Your task to perform on an android device: delete browsing data in the chrome app Image 0: 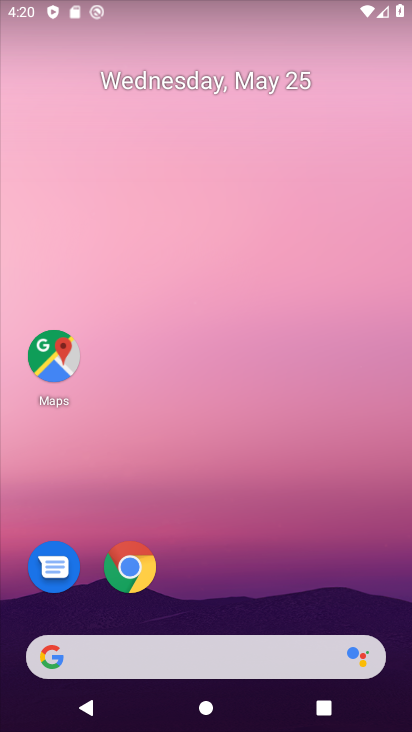
Step 0: click (126, 573)
Your task to perform on an android device: delete browsing data in the chrome app Image 1: 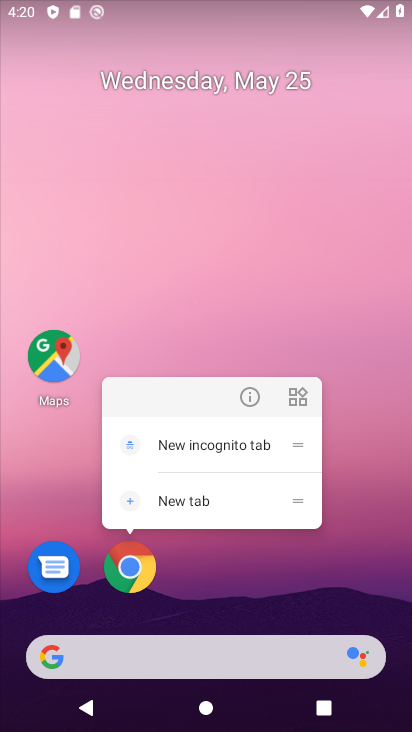
Step 1: click (133, 578)
Your task to perform on an android device: delete browsing data in the chrome app Image 2: 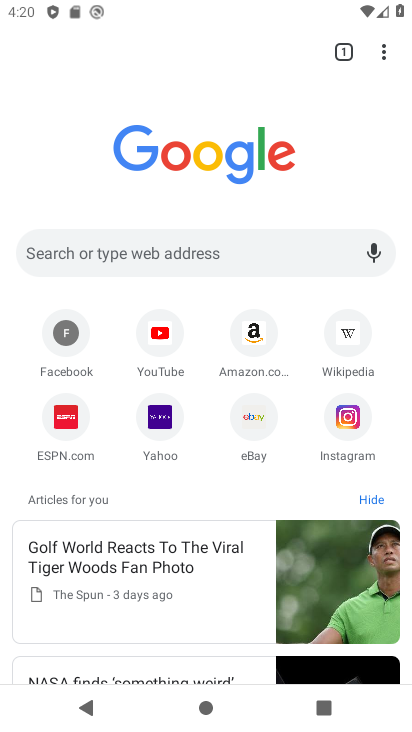
Step 2: drag from (382, 66) to (293, 445)
Your task to perform on an android device: delete browsing data in the chrome app Image 3: 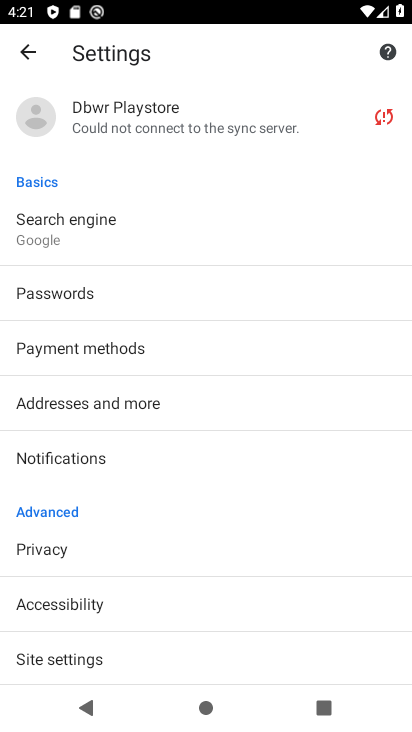
Step 3: drag from (176, 549) to (225, 431)
Your task to perform on an android device: delete browsing data in the chrome app Image 4: 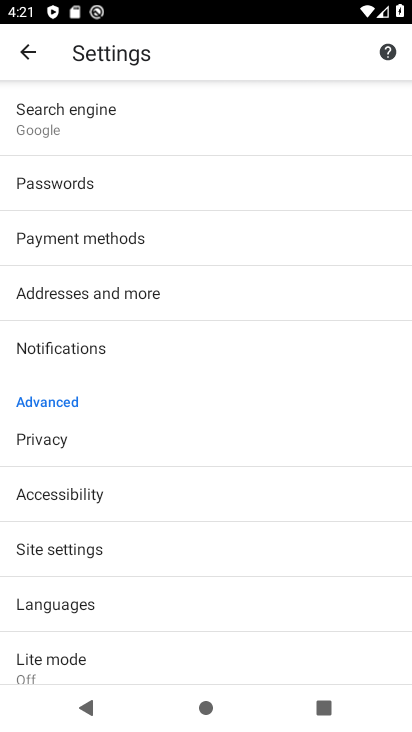
Step 4: click (104, 448)
Your task to perform on an android device: delete browsing data in the chrome app Image 5: 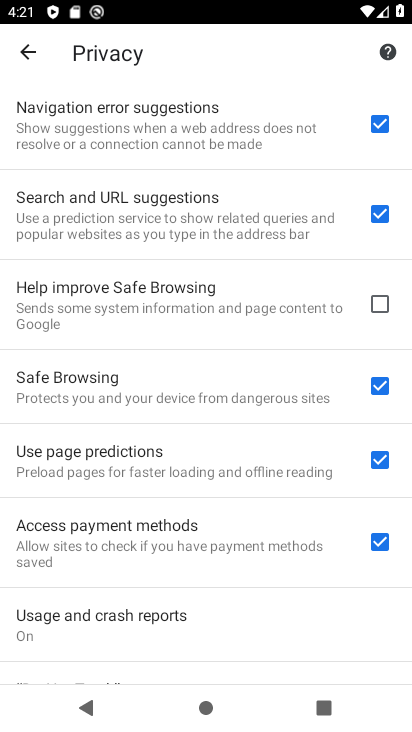
Step 5: drag from (127, 658) to (242, 245)
Your task to perform on an android device: delete browsing data in the chrome app Image 6: 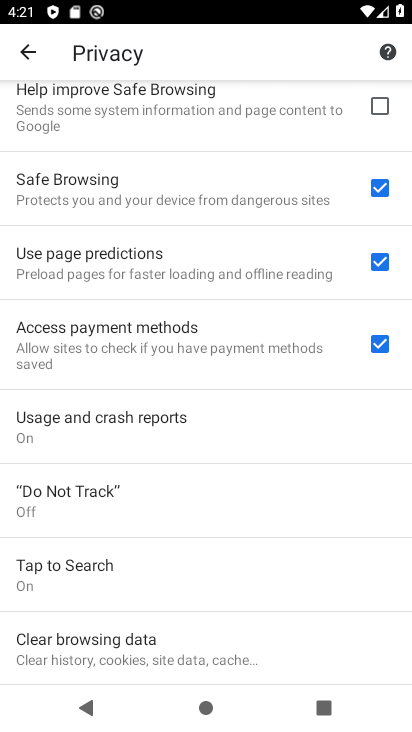
Step 6: click (149, 658)
Your task to perform on an android device: delete browsing data in the chrome app Image 7: 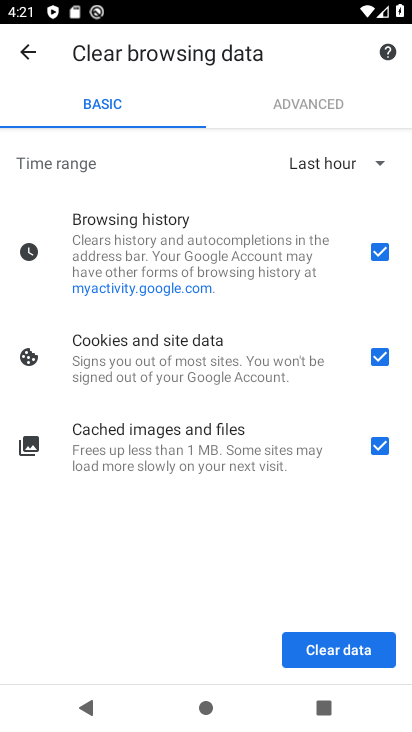
Step 7: click (345, 665)
Your task to perform on an android device: delete browsing data in the chrome app Image 8: 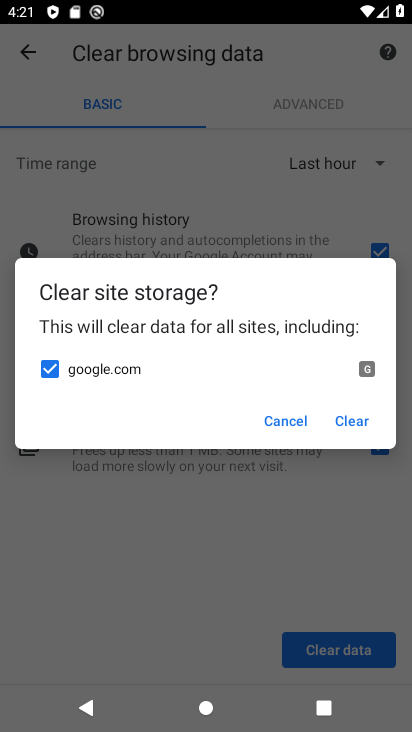
Step 8: click (333, 428)
Your task to perform on an android device: delete browsing data in the chrome app Image 9: 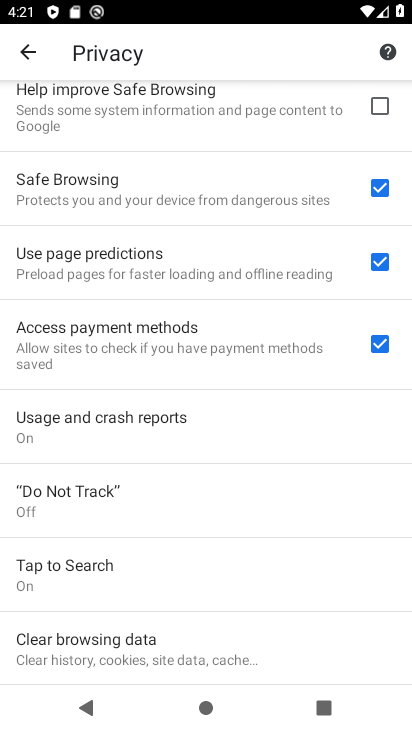
Step 9: task complete